Your task to perform on an android device: turn off wifi Image 0: 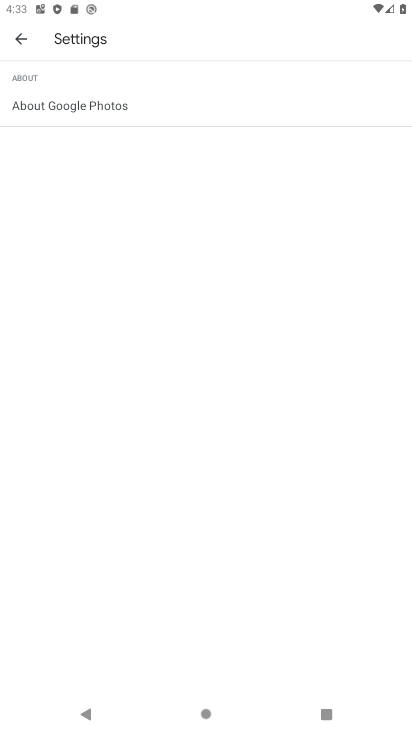
Step 0: click (9, 36)
Your task to perform on an android device: turn off wifi Image 1: 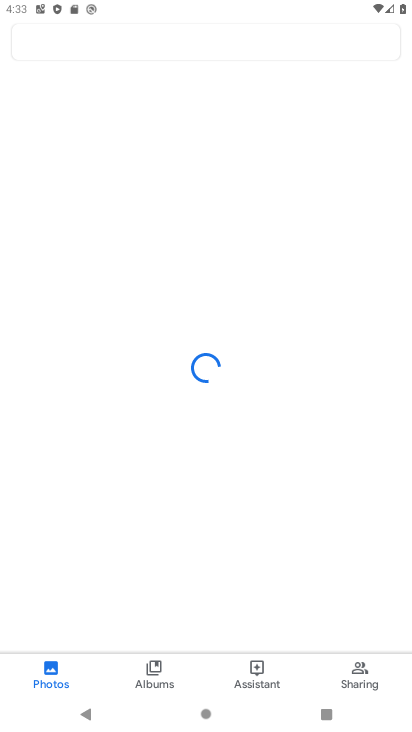
Step 1: press home button
Your task to perform on an android device: turn off wifi Image 2: 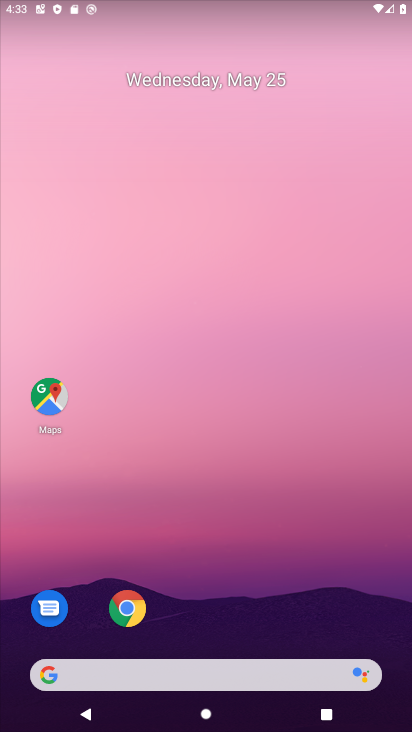
Step 2: drag from (289, 647) to (381, 98)
Your task to perform on an android device: turn off wifi Image 3: 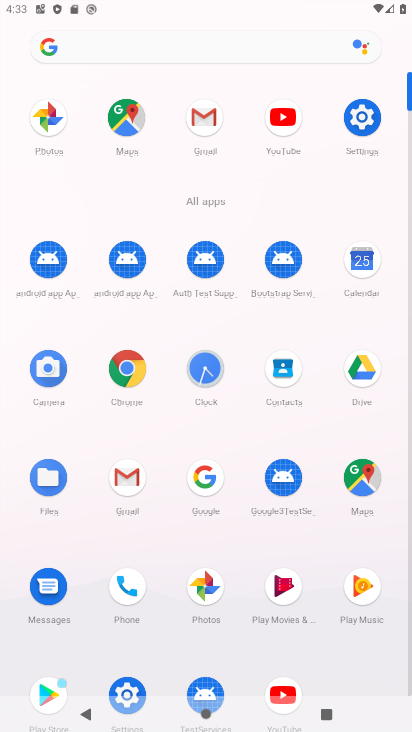
Step 3: click (373, 113)
Your task to perform on an android device: turn off wifi Image 4: 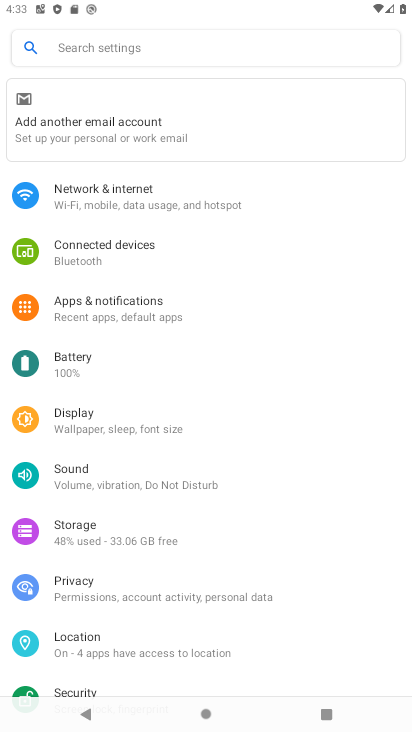
Step 4: click (192, 207)
Your task to perform on an android device: turn off wifi Image 5: 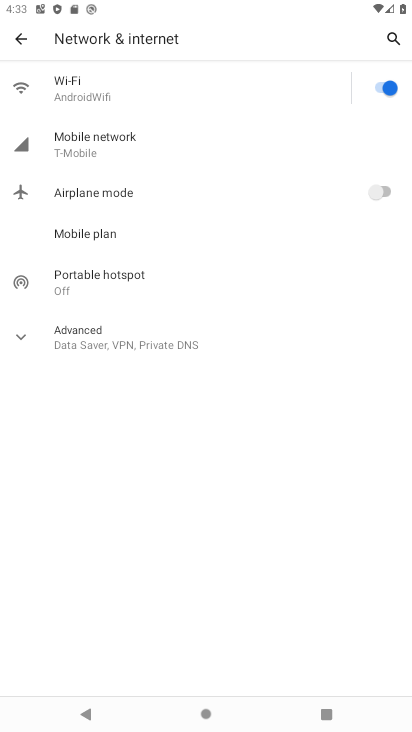
Step 5: click (389, 88)
Your task to perform on an android device: turn off wifi Image 6: 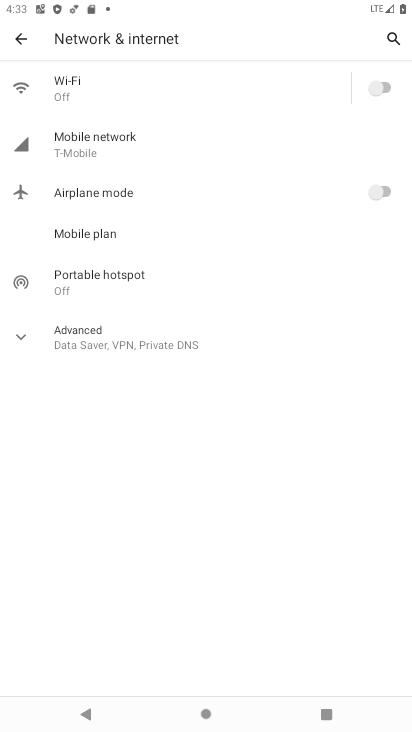
Step 6: task complete